Your task to perform on an android device: find photos in the google photos app Image 0: 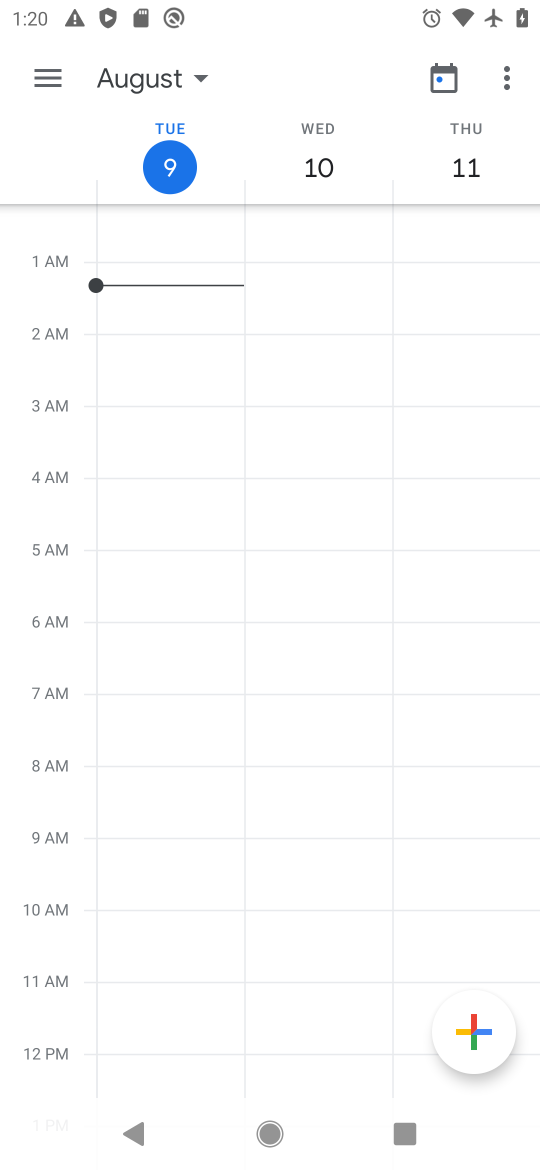
Step 0: press home button
Your task to perform on an android device: find photos in the google photos app Image 1: 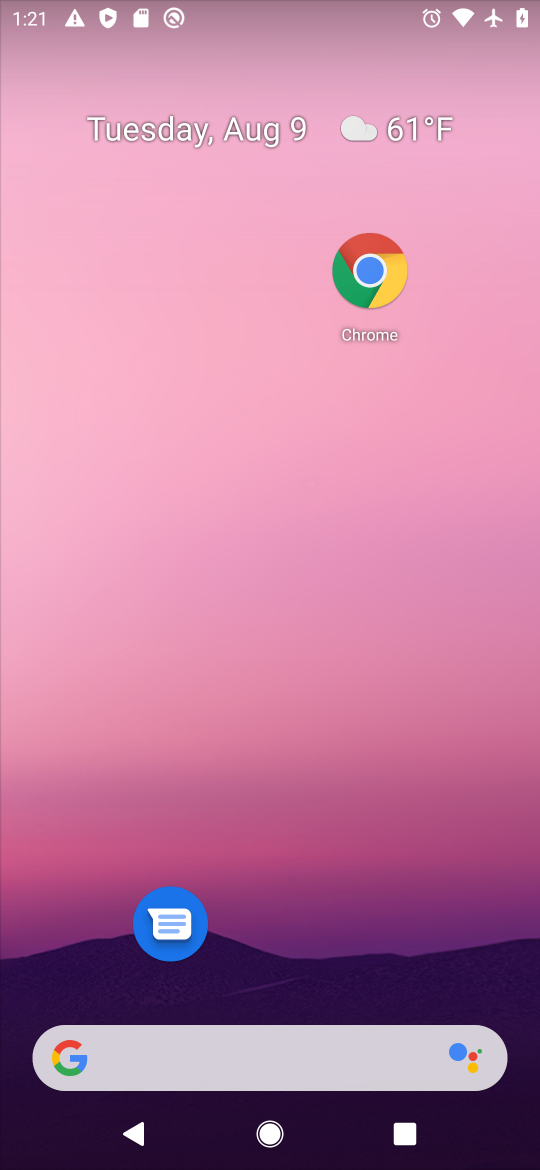
Step 1: drag from (318, 971) to (353, 278)
Your task to perform on an android device: find photos in the google photos app Image 2: 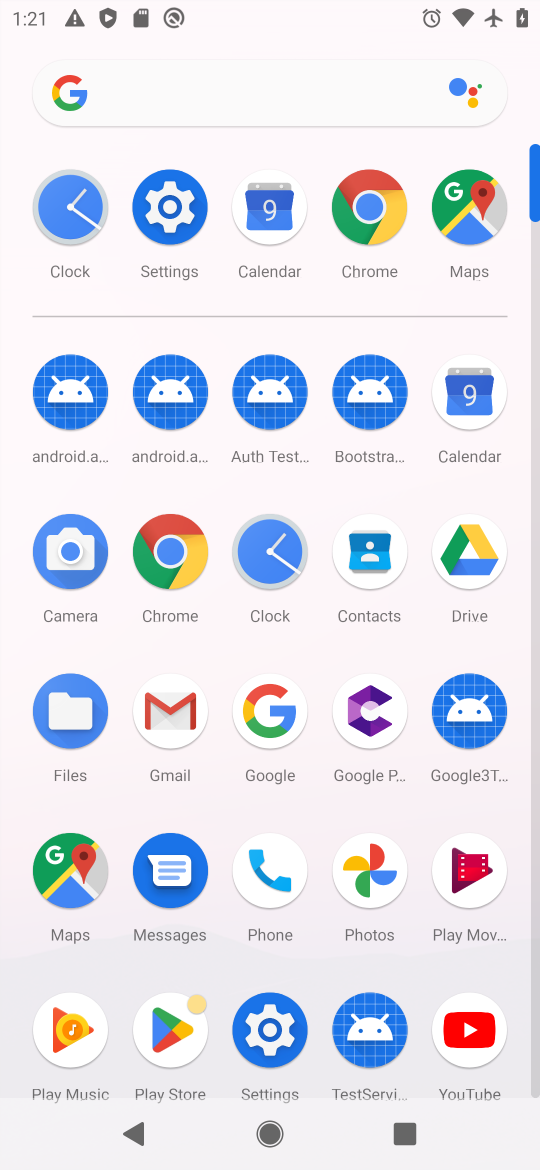
Step 2: click (379, 913)
Your task to perform on an android device: find photos in the google photos app Image 3: 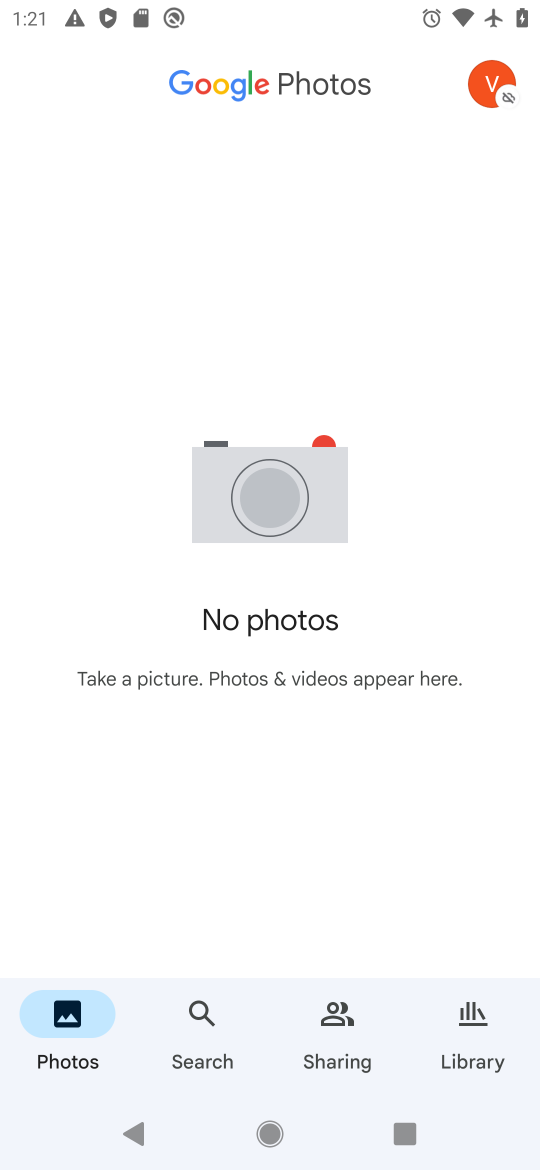
Step 3: task complete